Your task to perform on an android device: find which apps use the phone's location Image 0: 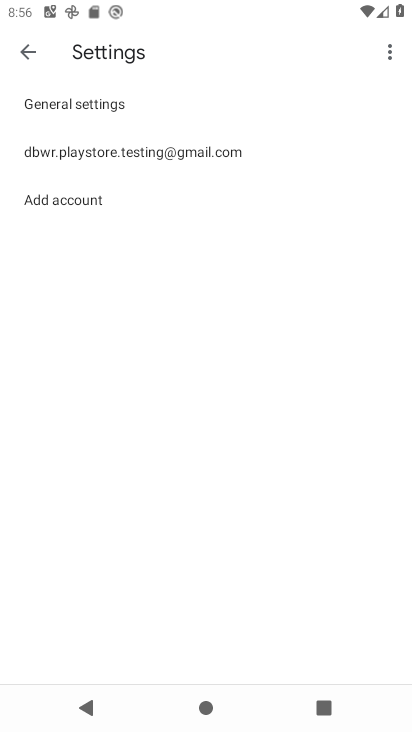
Step 0: press home button
Your task to perform on an android device: find which apps use the phone's location Image 1: 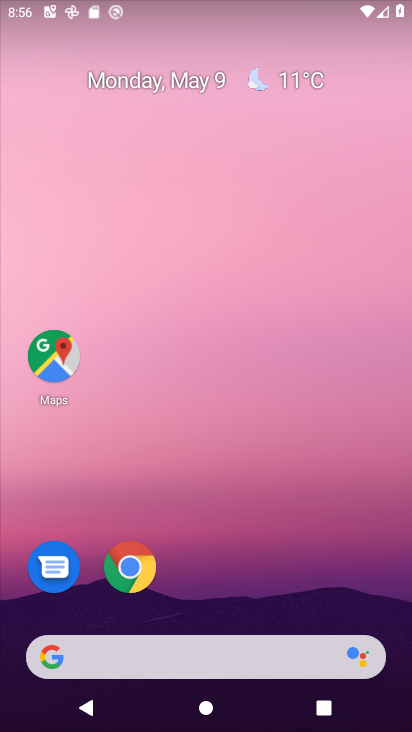
Step 1: drag from (255, 499) to (167, 38)
Your task to perform on an android device: find which apps use the phone's location Image 2: 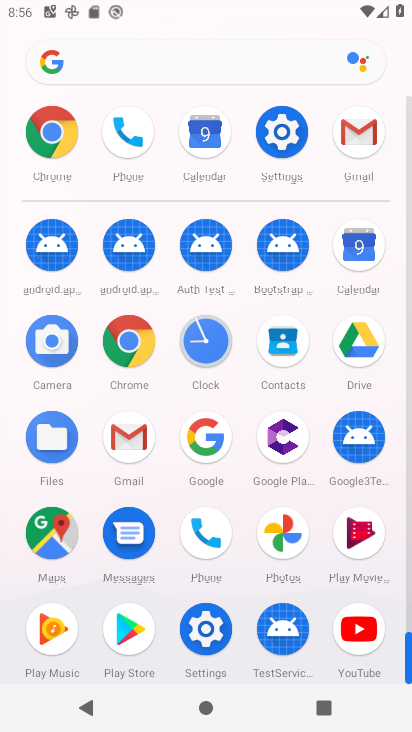
Step 2: click (282, 131)
Your task to perform on an android device: find which apps use the phone's location Image 3: 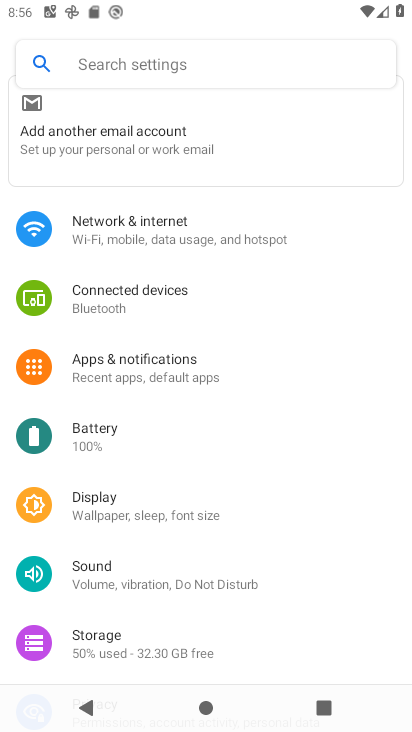
Step 3: drag from (223, 561) to (223, 145)
Your task to perform on an android device: find which apps use the phone's location Image 4: 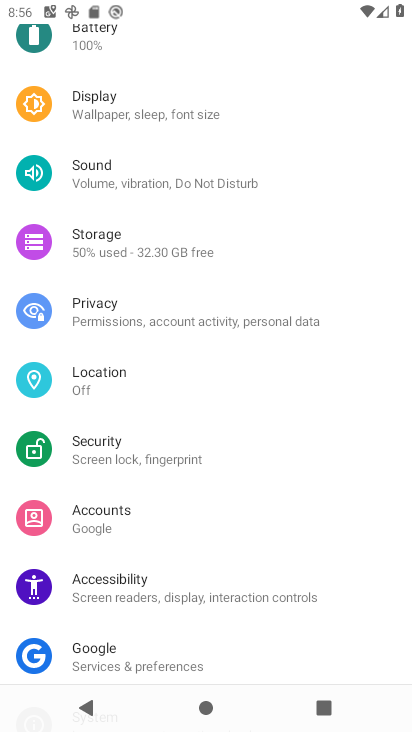
Step 4: click (139, 376)
Your task to perform on an android device: find which apps use the phone's location Image 5: 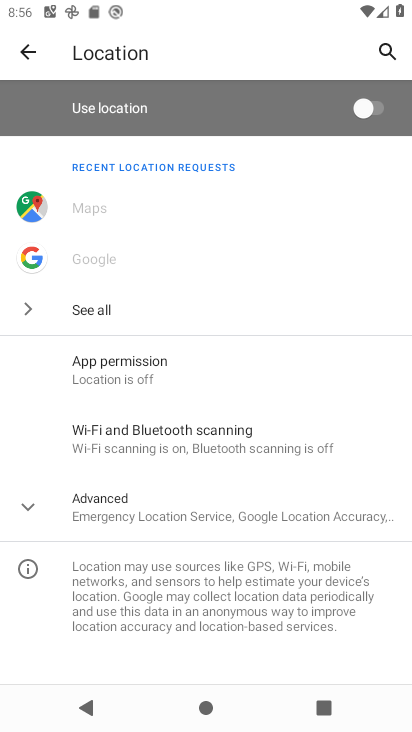
Step 5: click (370, 105)
Your task to perform on an android device: find which apps use the phone's location Image 6: 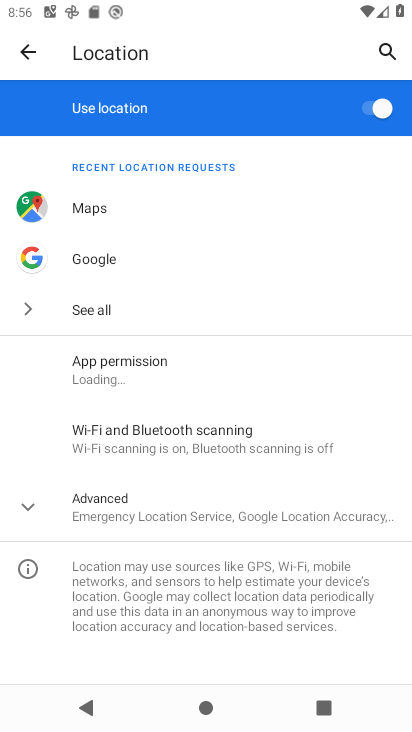
Step 6: click (155, 368)
Your task to perform on an android device: find which apps use the phone's location Image 7: 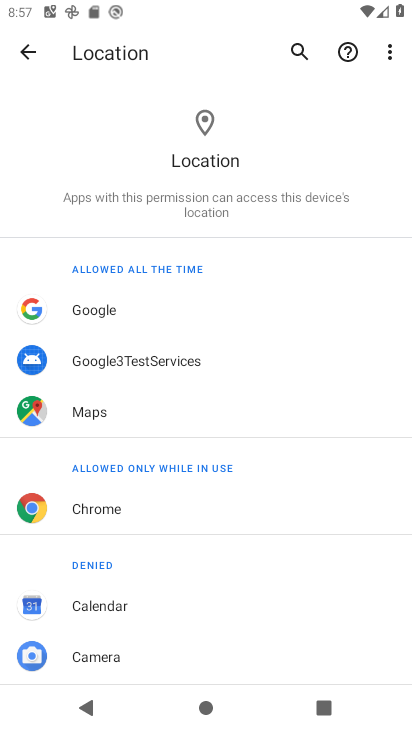
Step 7: task complete